Your task to perform on an android device: Go to sound settings Image 0: 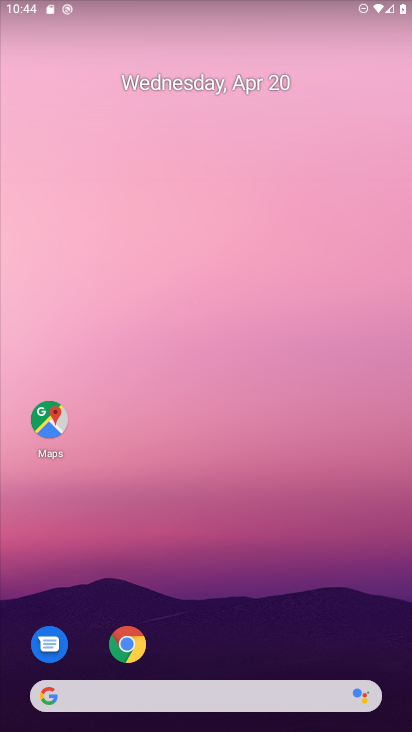
Step 0: drag from (359, 612) to (253, 114)
Your task to perform on an android device: Go to sound settings Image 1: 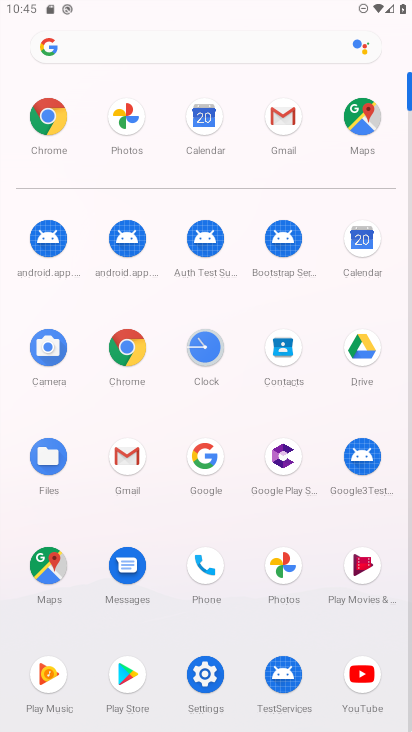
Step 1: click (213, 675)
Your task to perform on an android device: Go to sound settings Image 2: 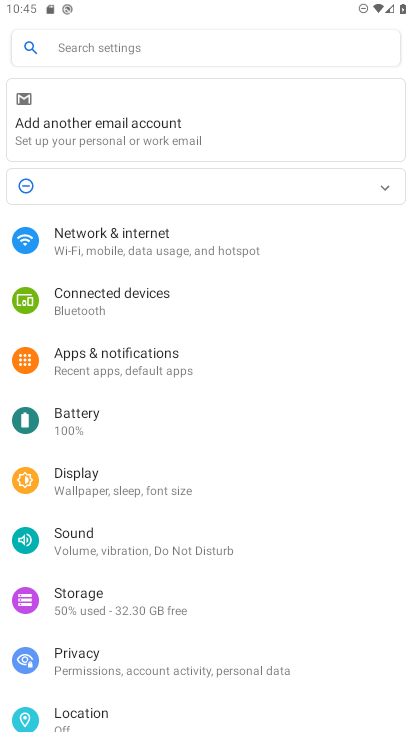
Step 2: click (109, 555)
Your task to perform on an android device: Go to sound settings Image 3: 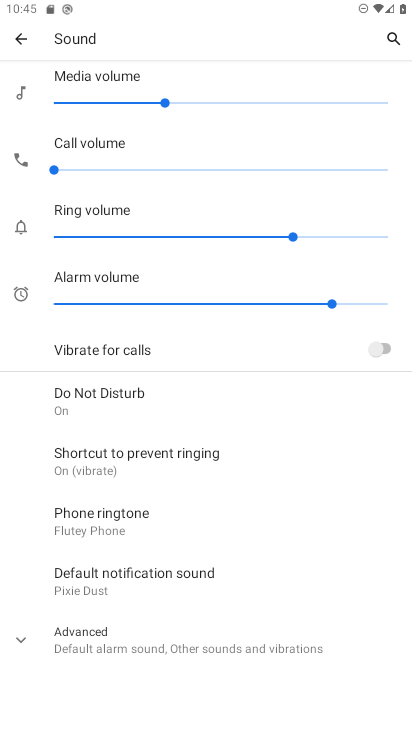
Step 3: task complete